Your task to perform on an android device: Open calendar and show me the second week of next month Image 0: 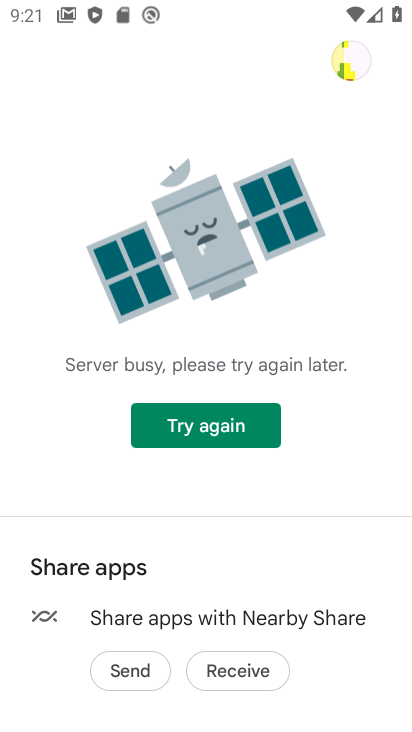
Step 0: press home button
Your task to perform on an android device: Open calendar and show me the second week of next month Image 1: 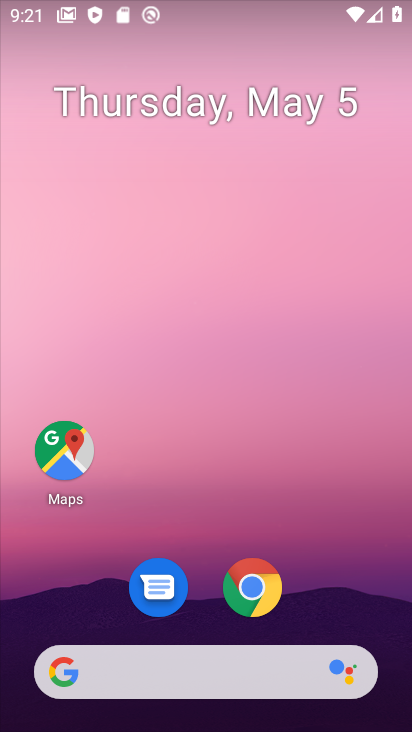
Step 1: drag from (387, 615) to (301, 9)
Your task to perform on an android device: Open calendar and show me the second week of next month Image 2: 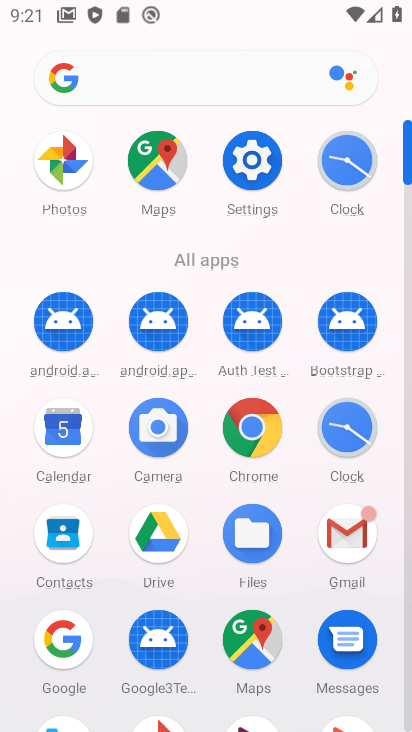
Step 2: click (74, 405)
Your task to perform on an android device: Open calendar and show me the second week of next month Image 3: 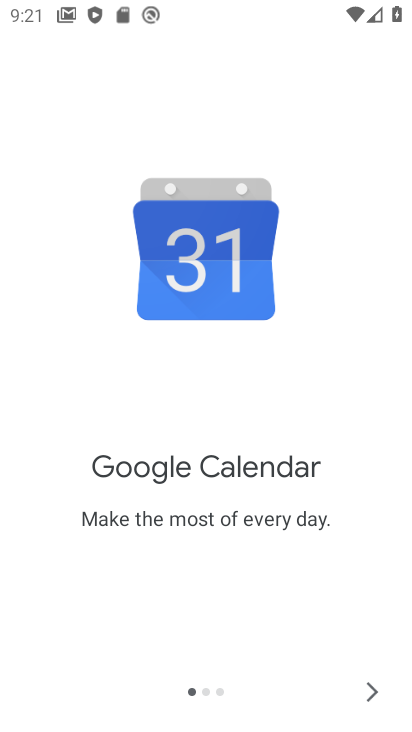
Step 3: click (374, 684)
Your task to perform on an android device: Open calendar and show me the second week of next month Image 4: 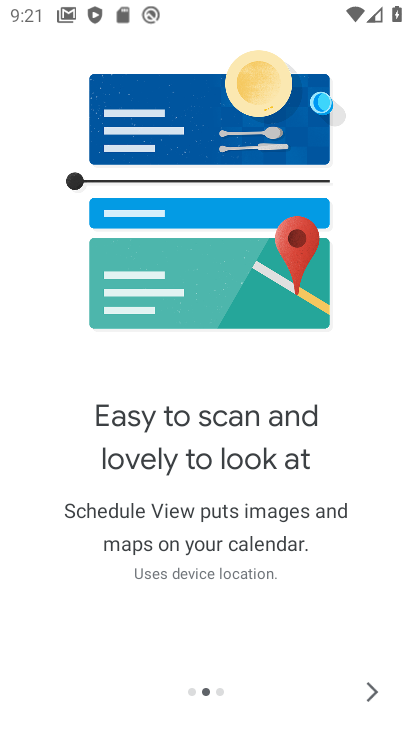
Step 4: click (360, 697)
Your task to perform on an android device: Open calendar and show me the second week of next month Image 5: 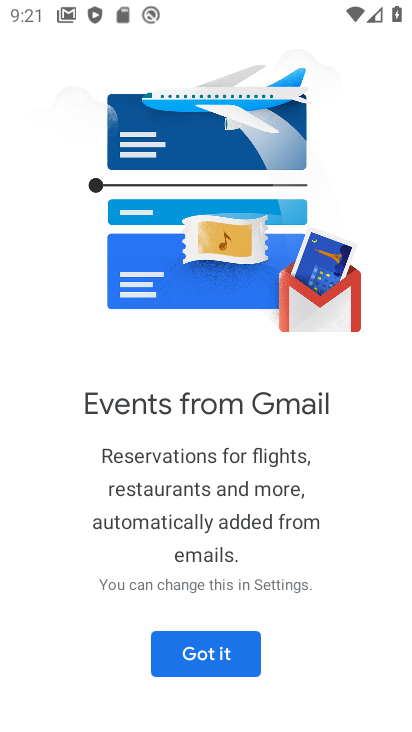
Step 5: click (242, 661)
Your task to perform on an android device: Open calendar and show me the second week of next month Image 6: 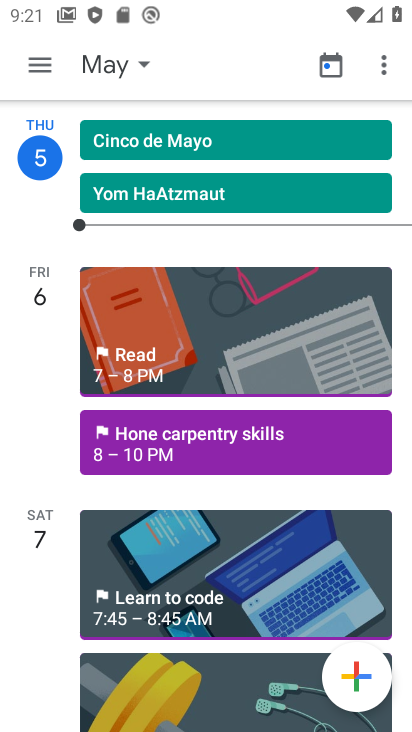
Step 6: click (131, 69)
Your task to perform on an android device: Open calendar and show me the second week of next month Image 7: 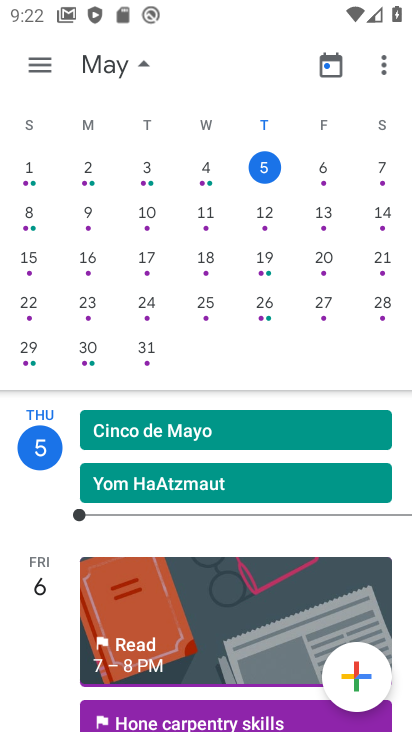
Step 7: drag from (376, 245) to (2, 326)
Your task to perform on an android device: Open calendar and show me the second week of next month Image 8: 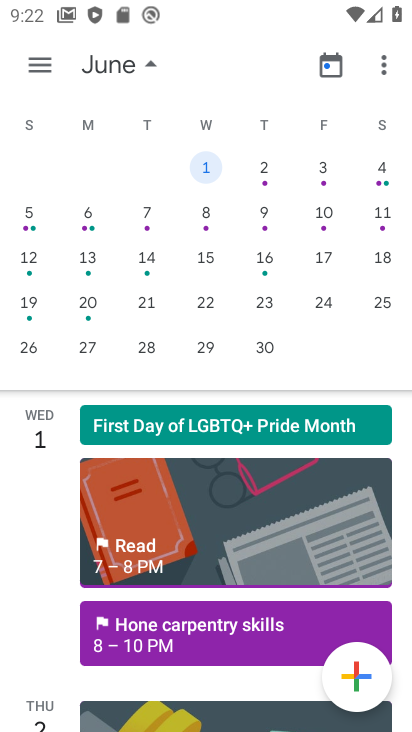
Step 8: click (208, 203)
Your task to perform on an android device: Open calendar and show me the second week of next month Image 9: 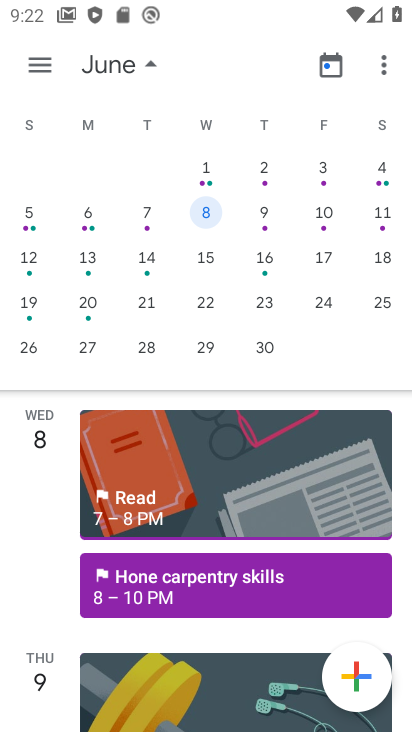
Step 9: task complete